Your task to perform on an android device: Go to notification settings Image 0: 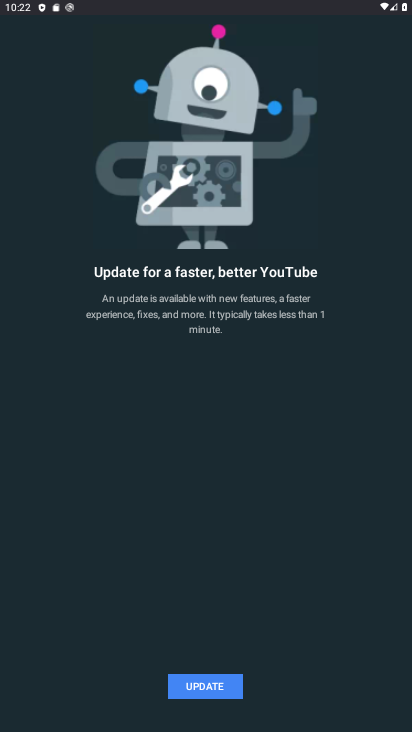
Step 0: press home button
Your task to perform on an android device: Go to notification settings Image 1: 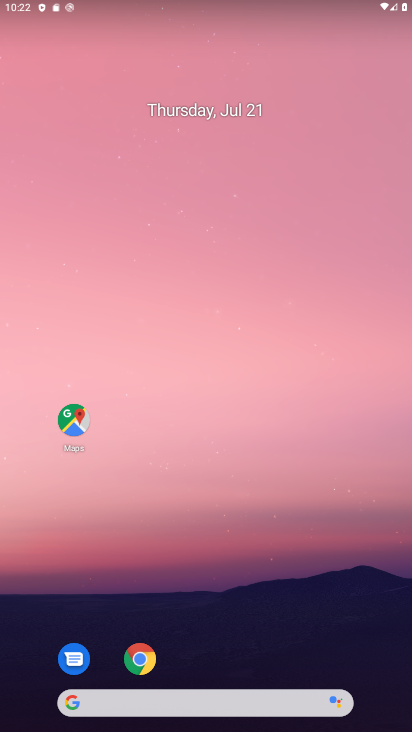
Step 1: drag from (213, 728) to (171, 145)
Your task to perform on an android device: Go to notification settings Image 2: 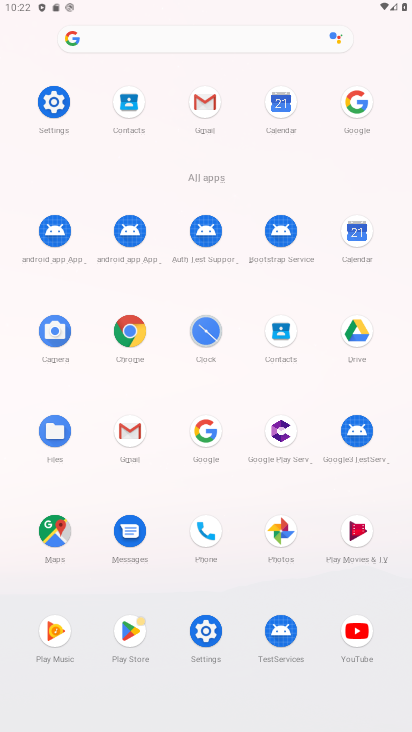
Step 2: click (52, 100)
Your task to perform on an android device: Go to notification settings Image 3: 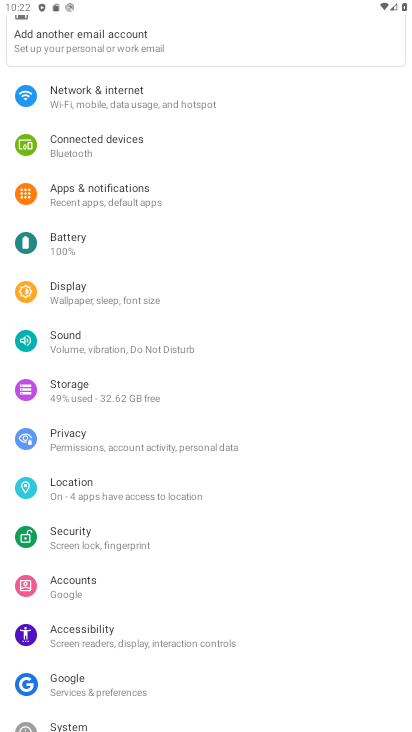
Step 3: click (104, 188)
Your task to perform on an android device: Go to notification settings Image 4: 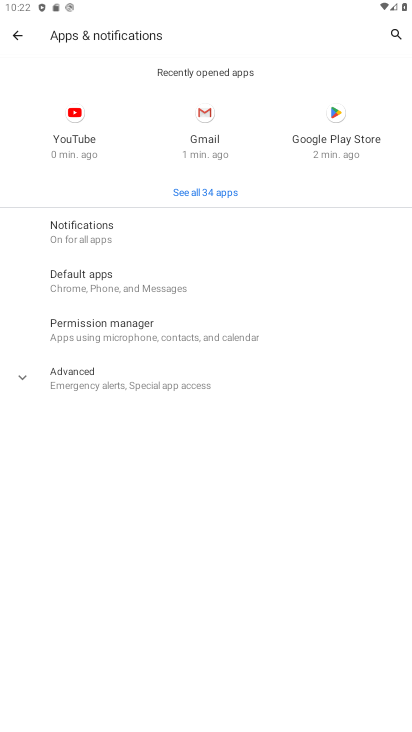
Step 4: click (75, 231)
Your task to perform on an android device: Go to notification settings Image 5: 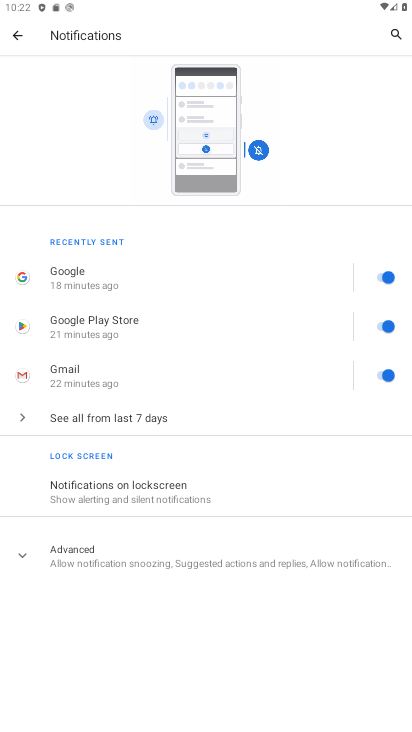
Step 5: task complete